Your task to perform on an android device: check storage Image 0: 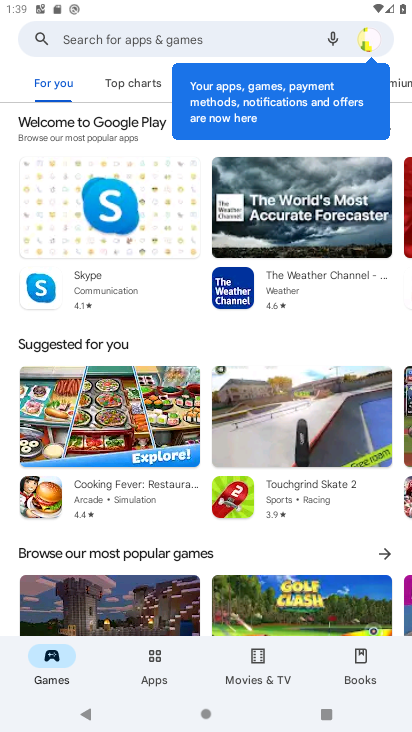
Step 0: press home button
Your task to perform on an android device: check storage Image 1: 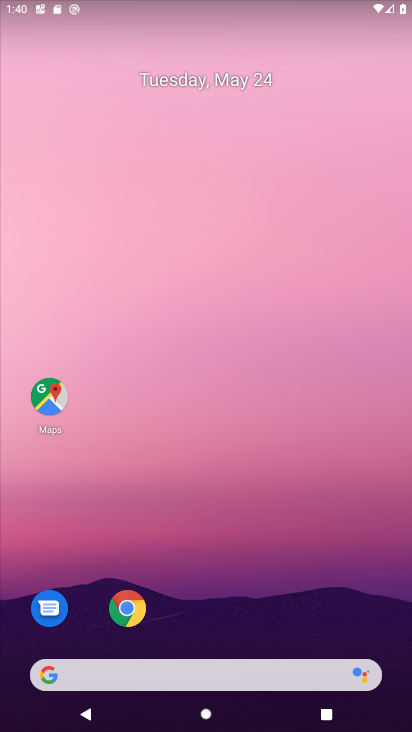
Step 1: drag from (261, 590) to (277, 73)
Your task to perform on an android device: check storage Image 2: 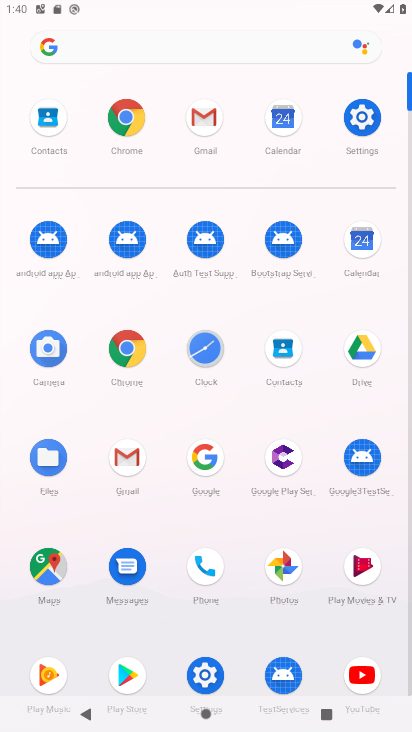
Step 2: click (344, 107)
Your task to perform on an android device: check storage Image 3: 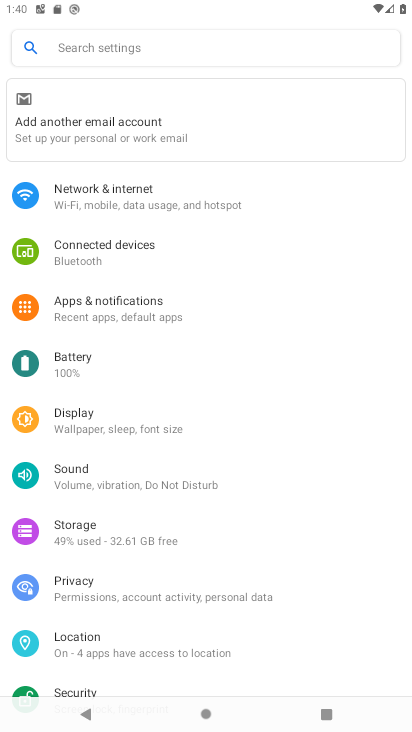
Step 3: click (152, 548)
Your task to perform on an android device: check storage Image 4: 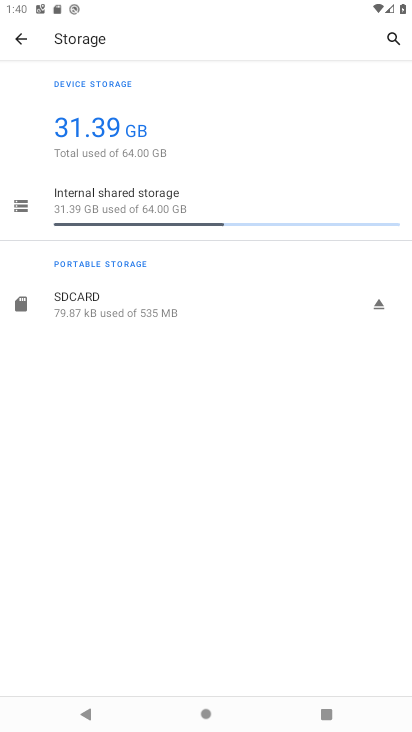
Step 4: task complete